Your task to perform on an android device: Open Google Maps and go to "Timeline" Image 0: 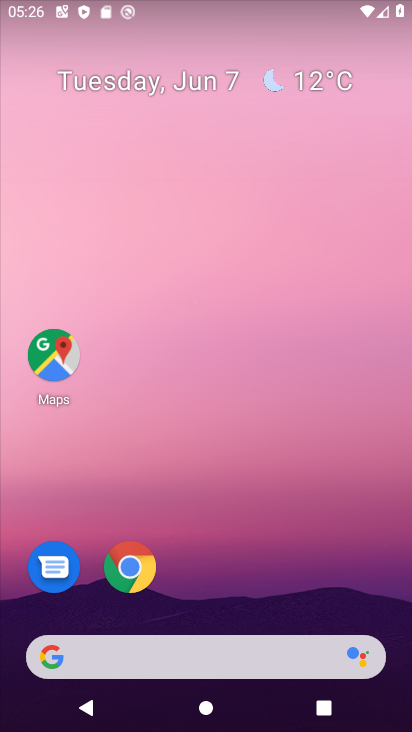
Step 0: drag from (290, 553) to (265, 17)
Your task to perform on an android device: Open Google Maps and go to "Timeline" Image 1: 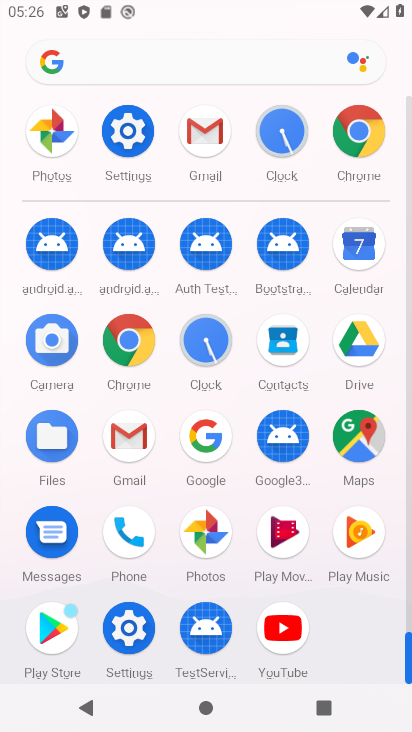
Step 1: click (361, 440)
Your task to perform on an android device: Open Google Maps and go to "Timeline" Image 2: 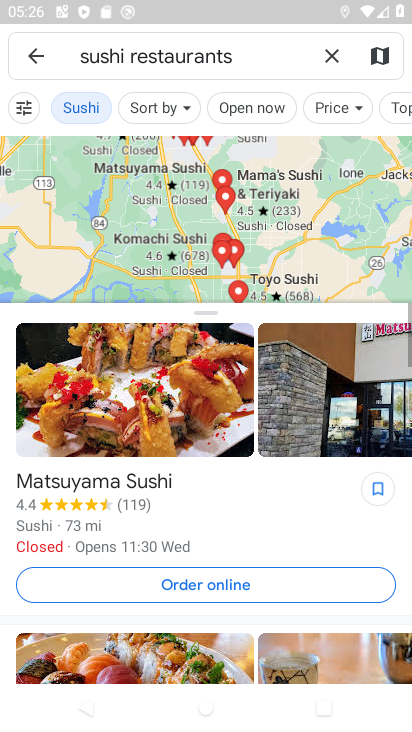
Step 2: click (45, 57)
Your task to perform on an android device: Open Google Maps and go to "Timeline" Image 3: 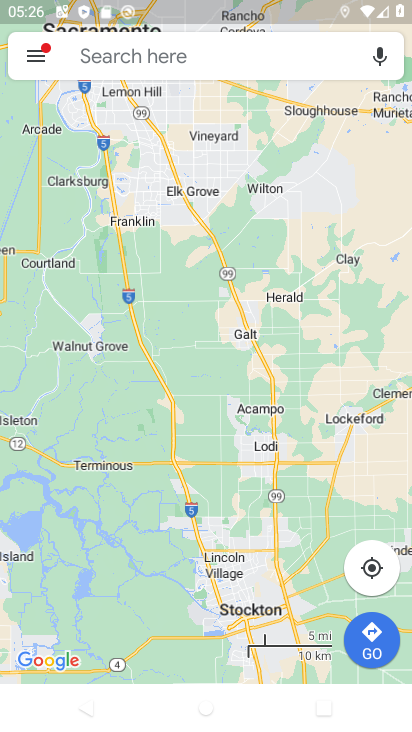
Step 3: click (41, 53)
Your task to perform on an android device: Open Google Maps and go to "Timeline" Image 4: 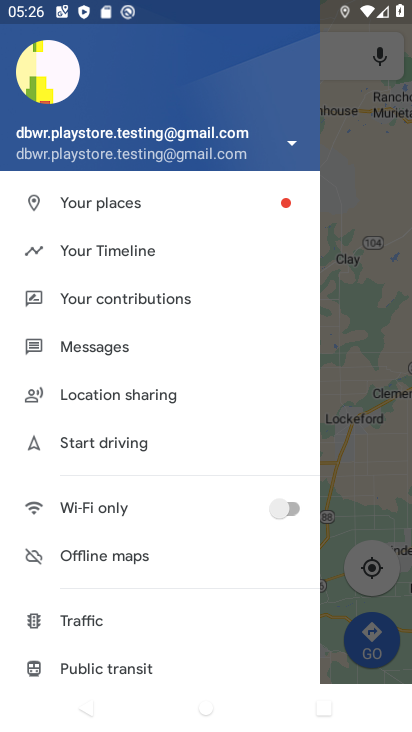
Step 4: click (142, 249)
Your task to perform on an android device: Open Google Maps and go to "Timeline" Image 5: 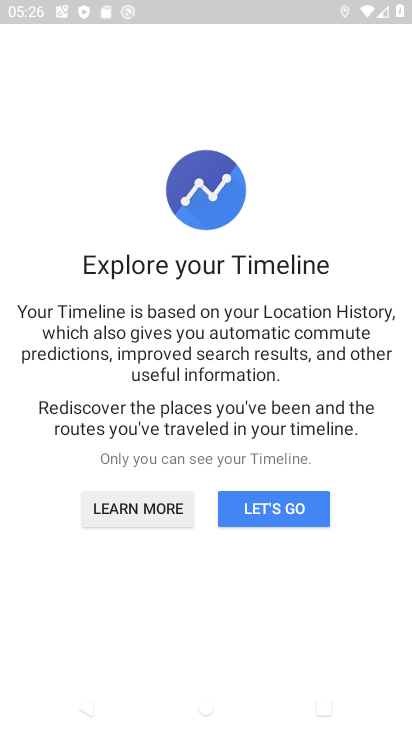
Step 5: click (270, 511)
Your task to perform on an android device: Open Google Maps and go to "Timeline" Image 6: 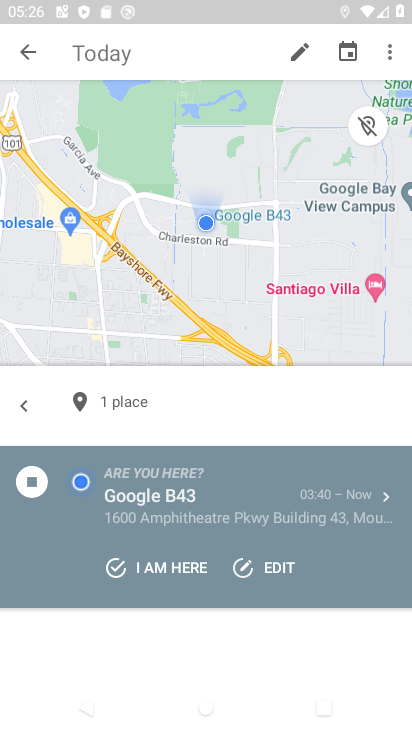
Step 6: task complete